Your task to perform on an android device: open chrome privacy settings Image 0: 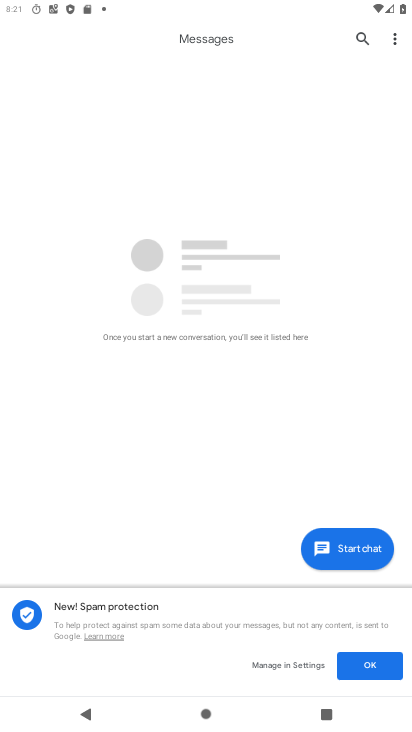
Step 0: press home button
Your task to perform on an android device: open chrome privacy settings Image 1: 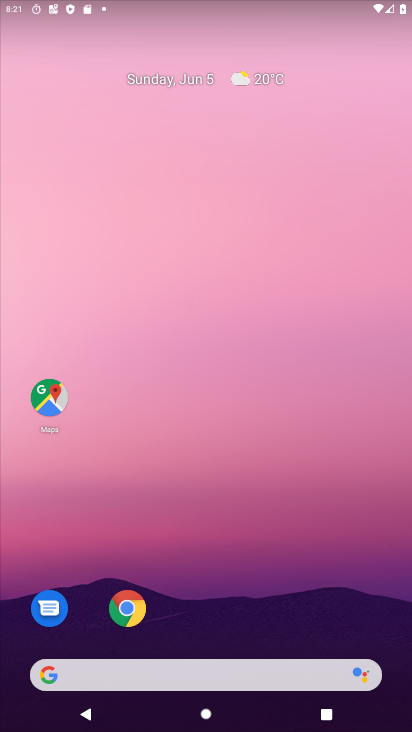
Step 1: drag from (286, 580) to (252, 48)
Your task to perform on an android device: open chrome privacy settings Image 2: 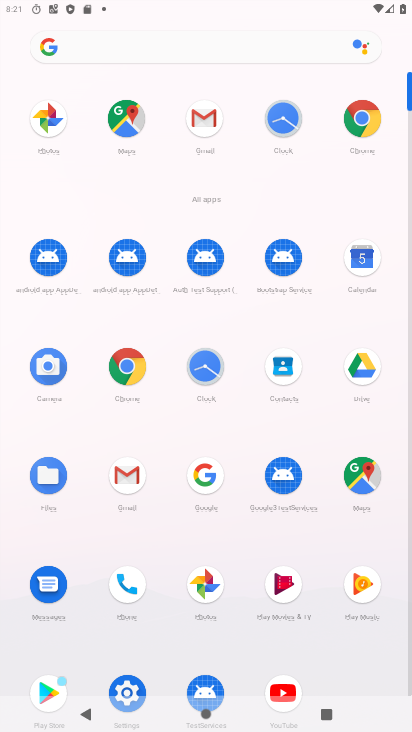
Step 2: click (127, 377)
Your task to perform on an android device: open chrome privacy settings Image 3: 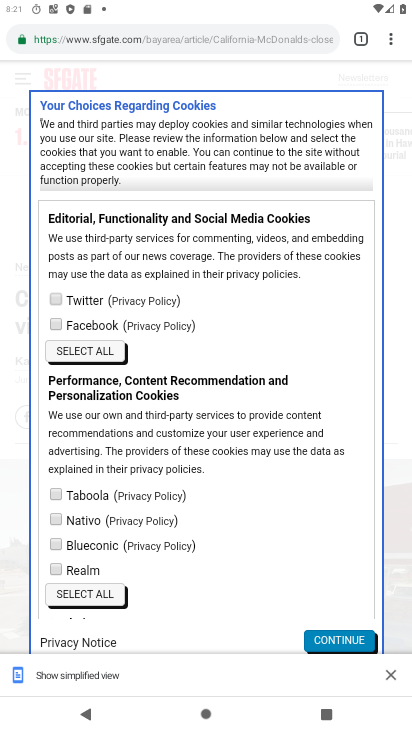
Step 3: drag from (390, 46) to (246, 467)
Your task to perform on an android device: open chrome privacy settings Image 4: 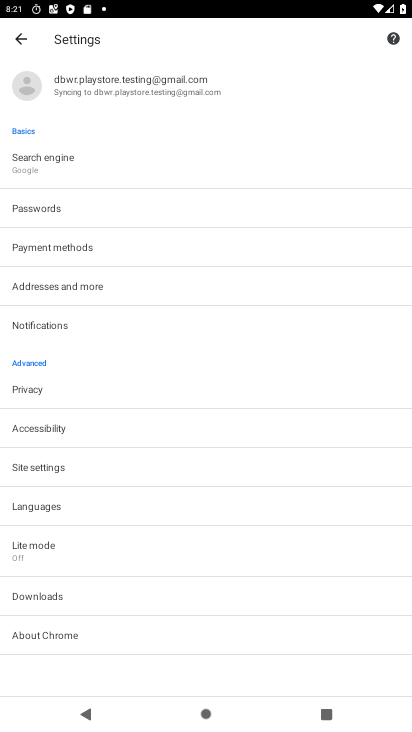
Step 4: click (69, 386)
Your task to perform on an android device: open chrome privacy settings Image 5: 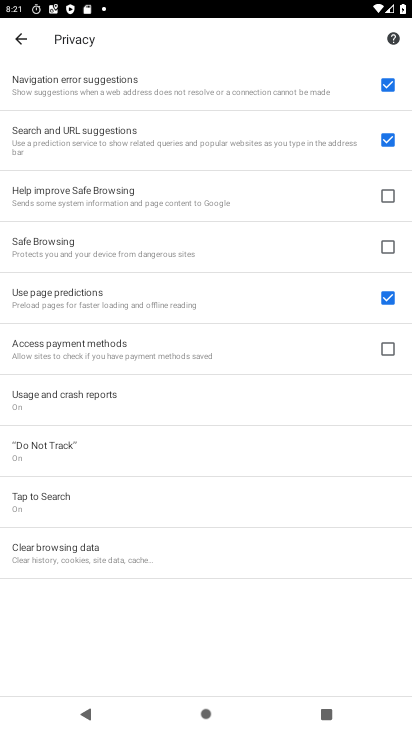
Step 5: task complete